Your task to perform on an android device: Add amazon basics triple a to the cart on ebay, then select checkout. Image 0: 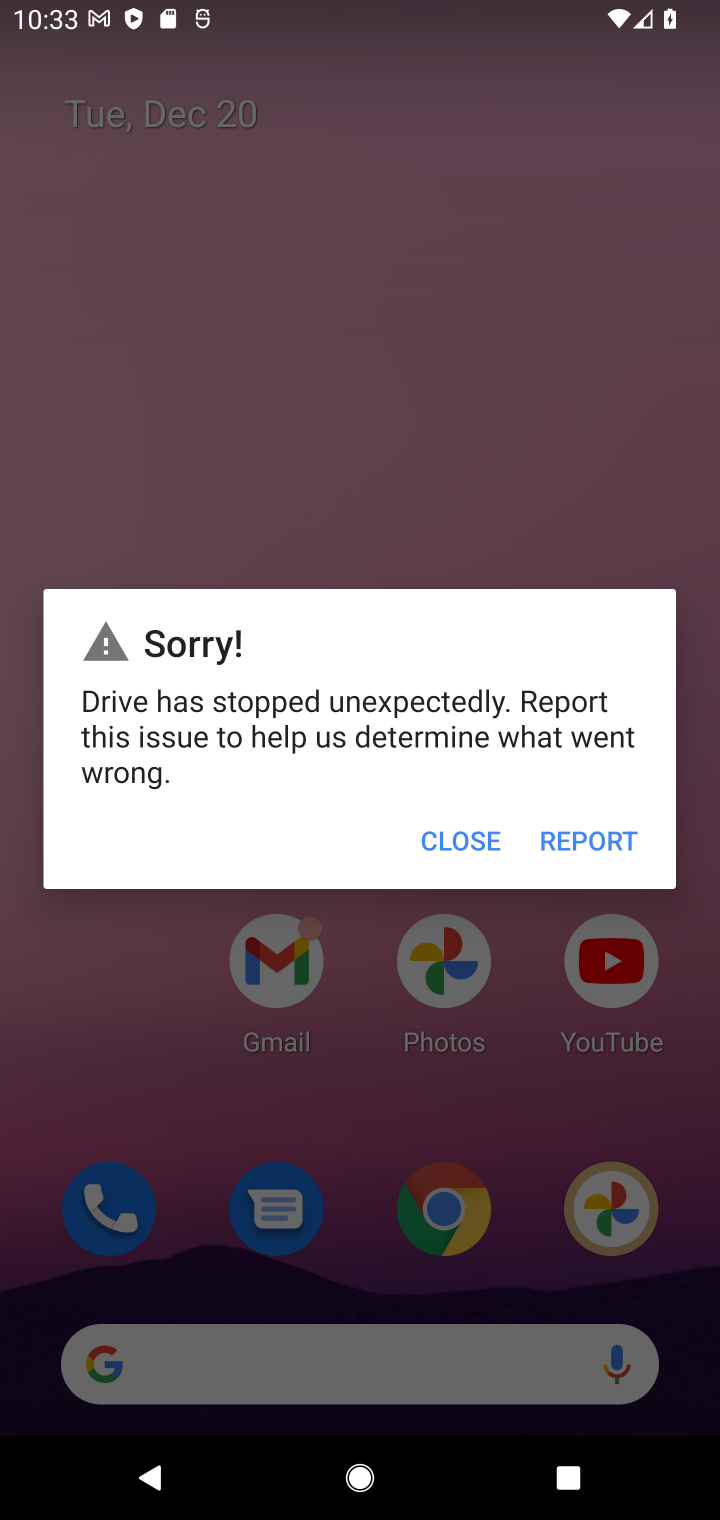
Step 0: press home button
Your task to perform on an android device: Add amazon basics triple a to the cart on ebay, then select checkout. Image 1: 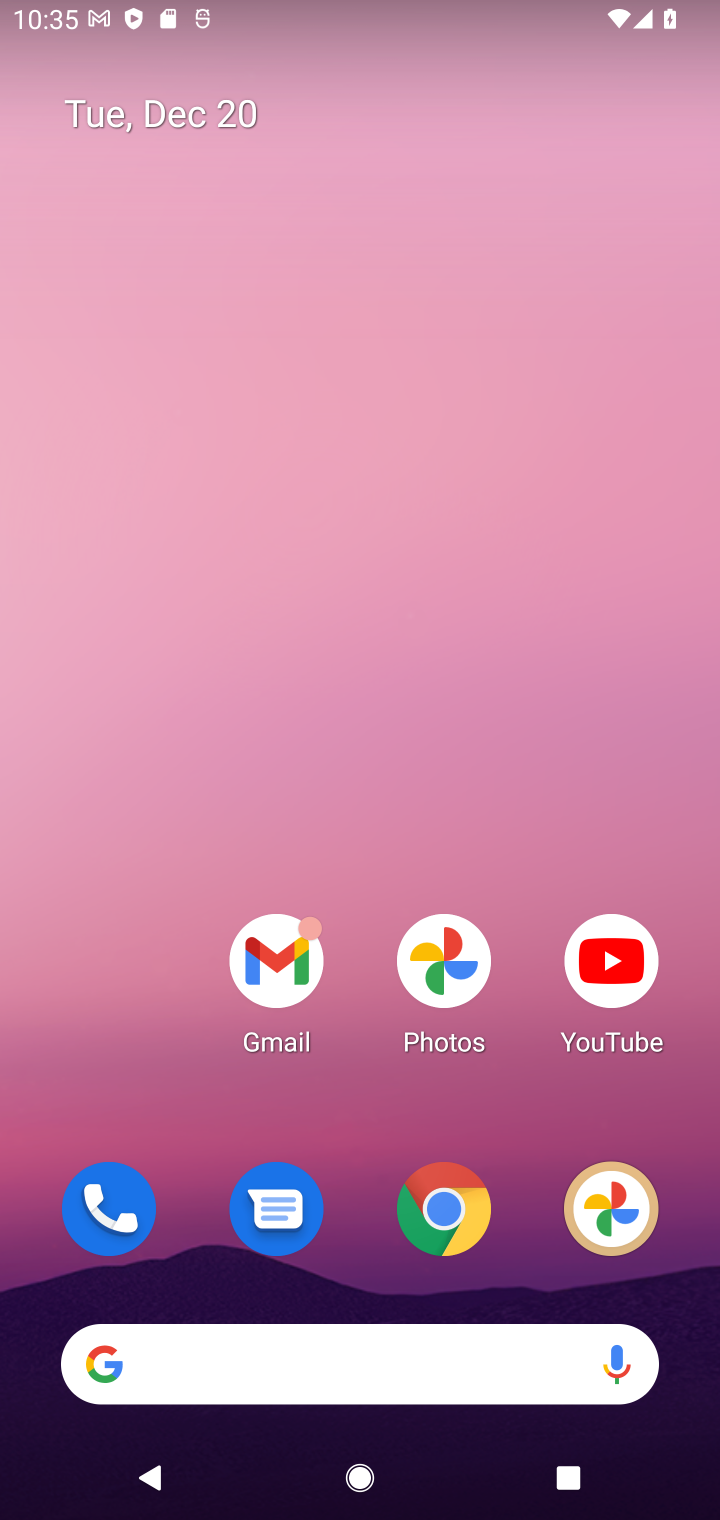
Step 1: click (446, 1218)
Your task to perform on an android device: Add amazon basics triple a to the cart on ebay, then select checkout. Image 2: 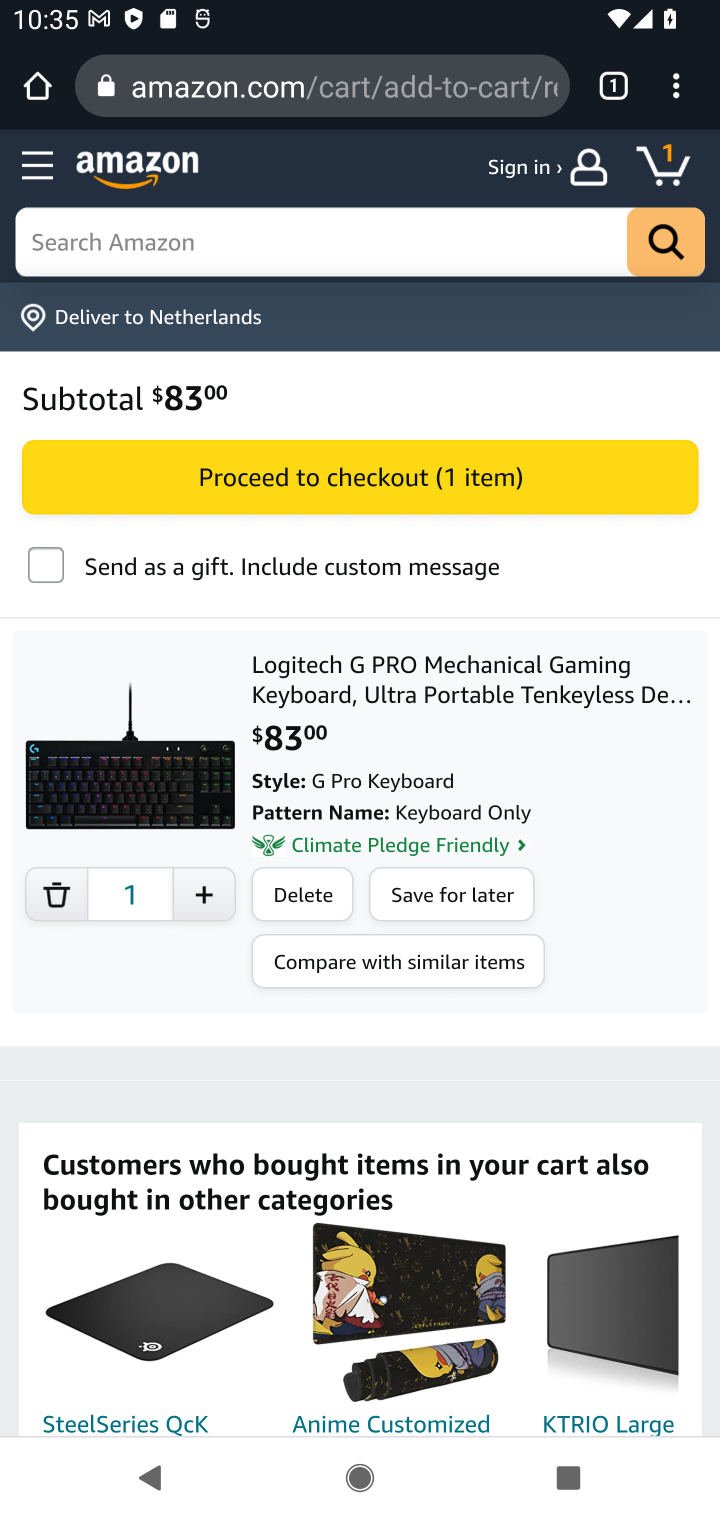
Step 2: click (295, 97)
Your task to perform on an android device: Add amazon basics triple a to the cart on ebay, then select checkout. Image 3: 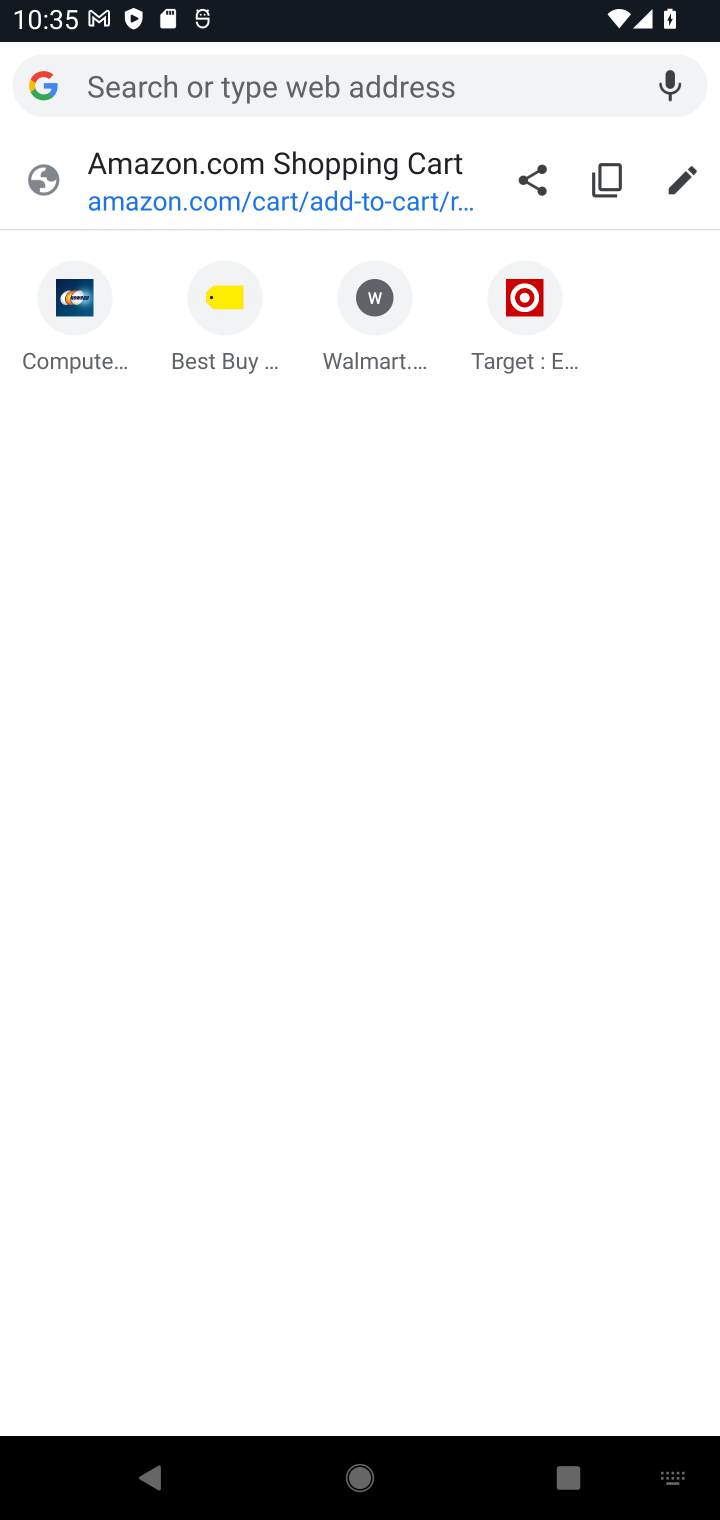
Step 3: type "ebay.com"
Your task to perform on an android device: Add amazon basics triple a to the cart on ebay, then select checkout. Image 4: 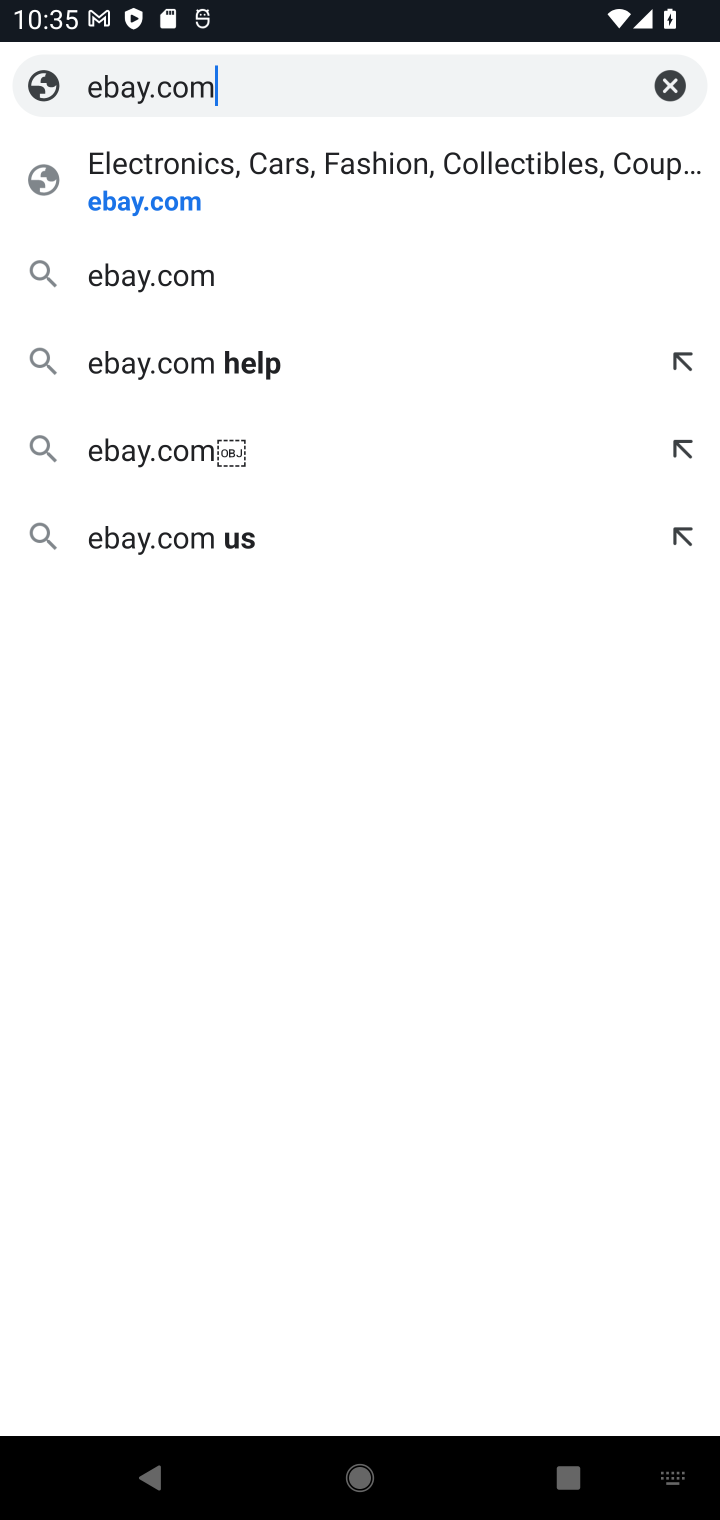
Step 4: click (116, 209)
Your task to perform on an android device: Add amazon basics triple a to the cart on ebay, then select checkout. Image 5: 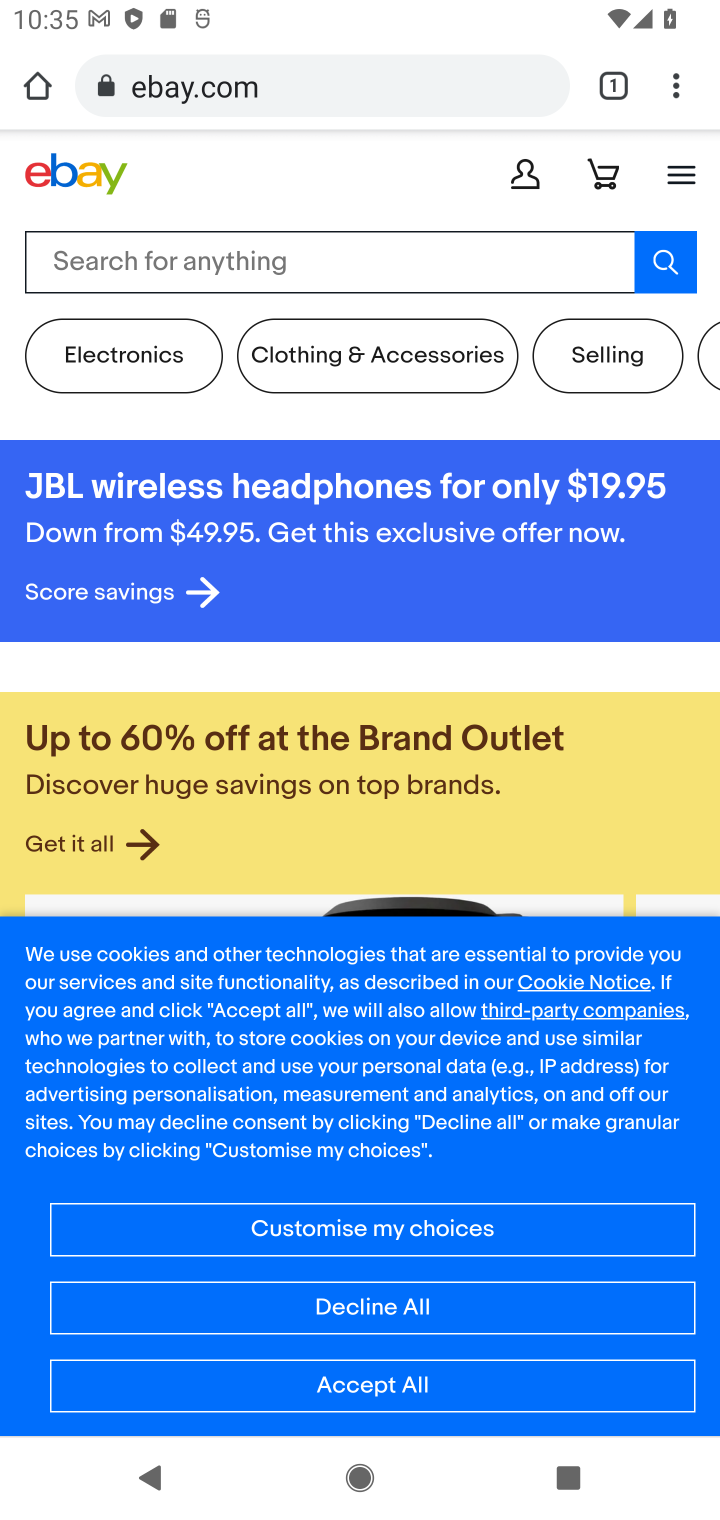
Step 5: click (132, 261)
Your task to perform on an android device: Add amazon basics triple a to the cart on ebay, then select checkout. Image 6: 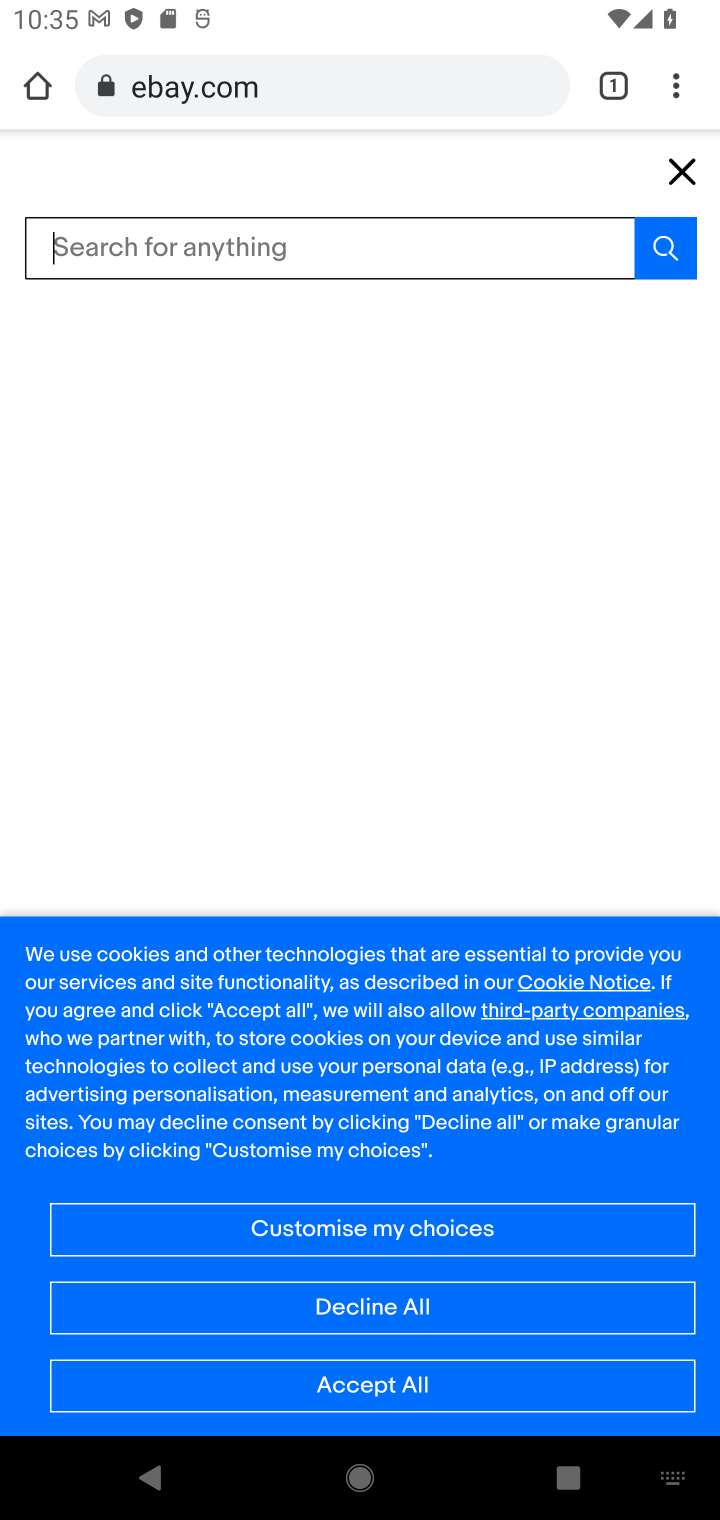
Step 6: type "amazon basics triple a"
Your task to perform on an android device: Add amazon basics triple a to the cart on ebay, then select checkout. Image 7: 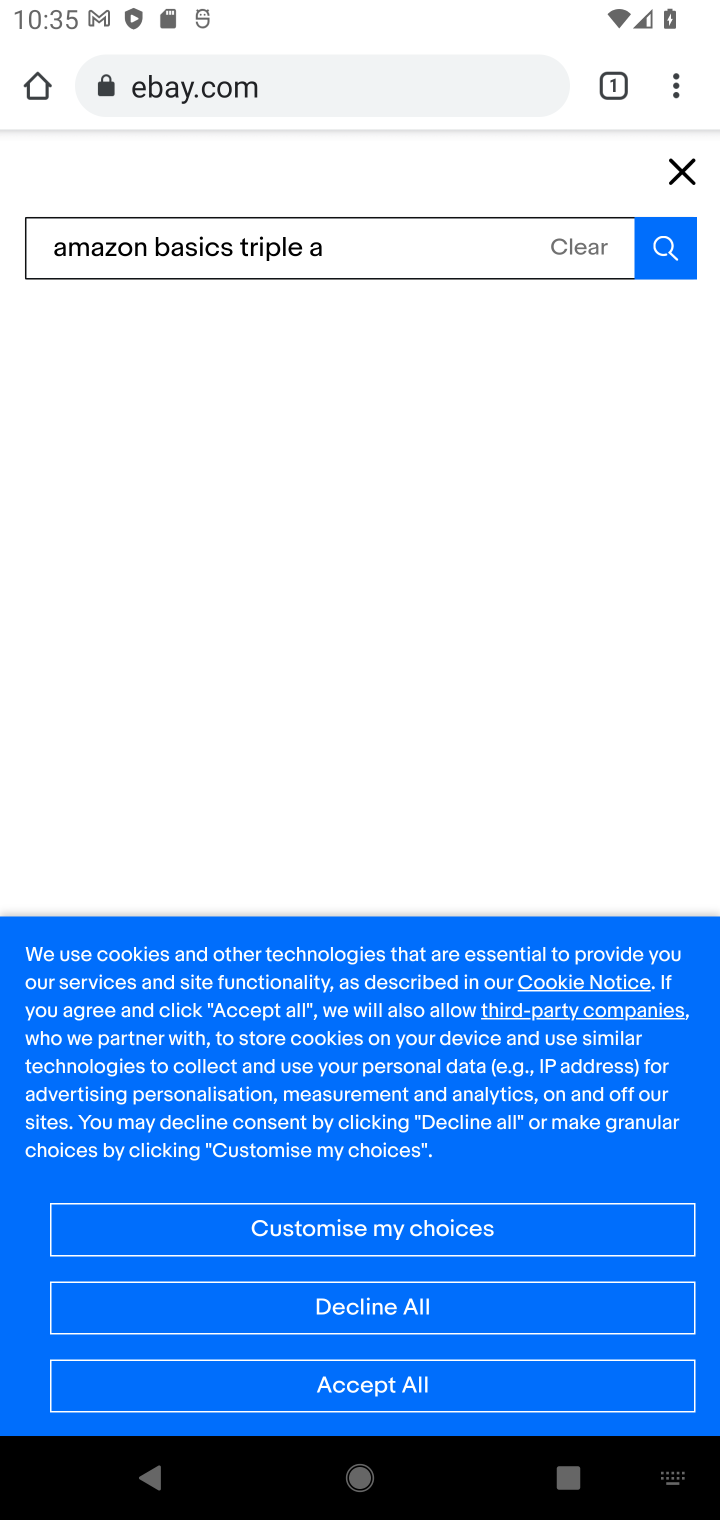
Step 7: click (676, 253)
Your task to perform on an android device: Add amazon basics triple a to the cart on ebay, then select checkout. Image 8: 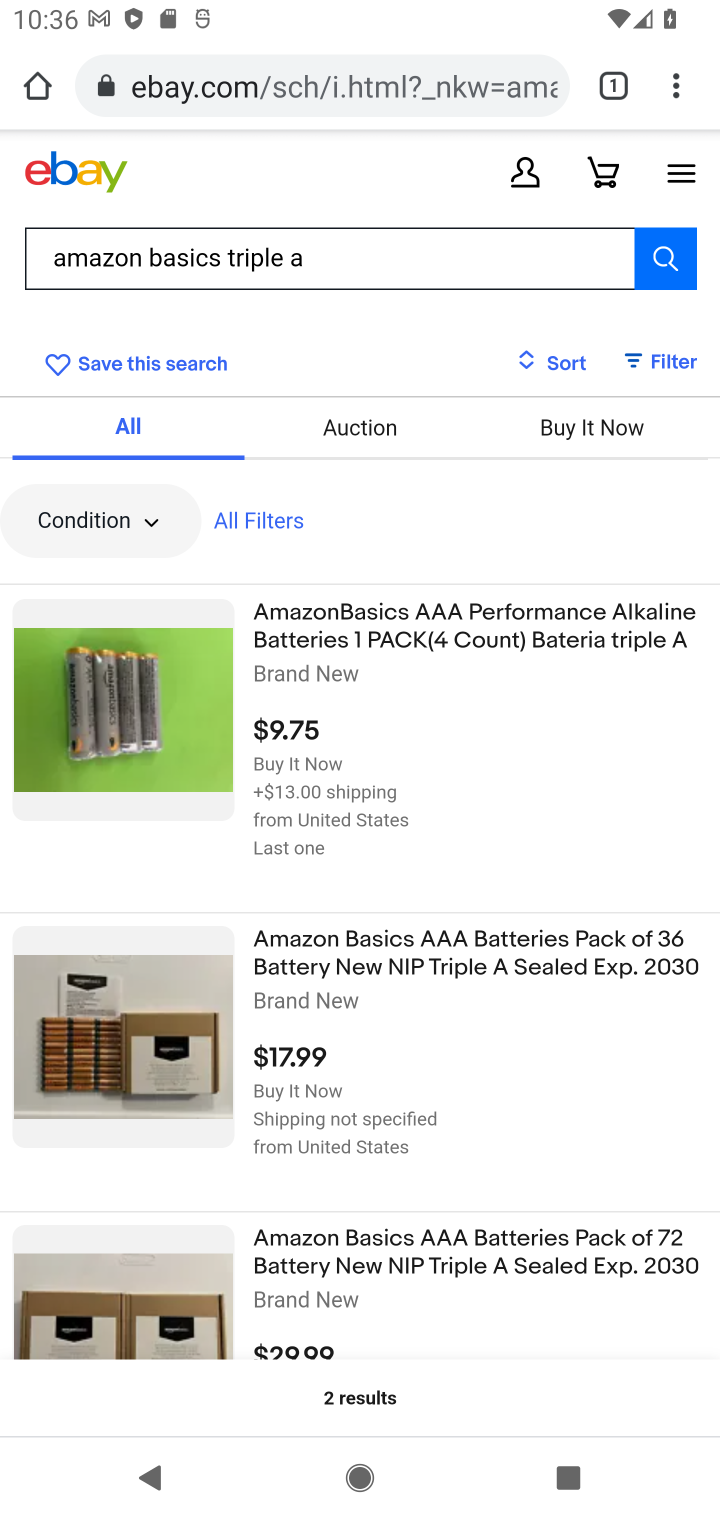
Step 8: click (302, 652)
Your task to perform on an android device: Add amazon basics triple a to the cart on ebay, then select checkout. Image 9: 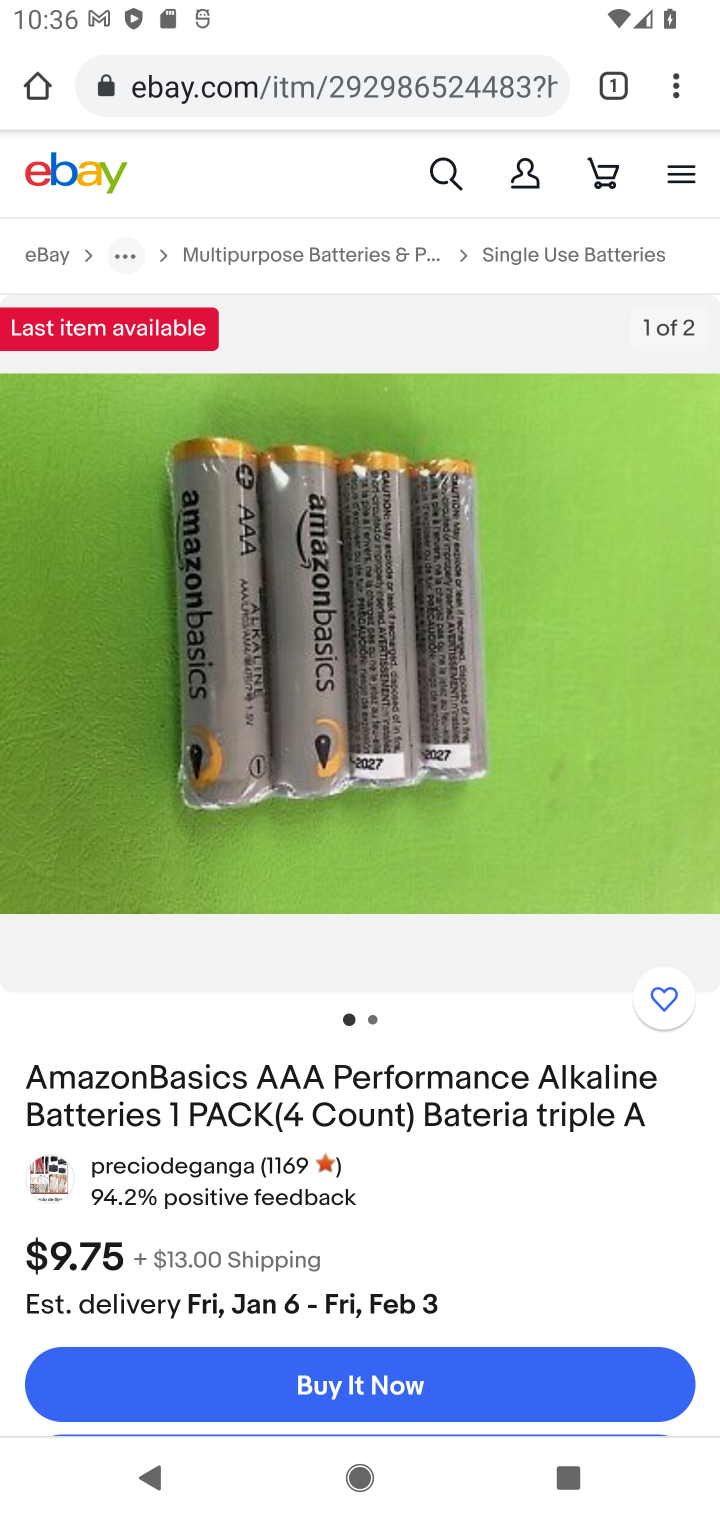
Step 9: drag from (297, 862) to (286, 668)
Your task to perform on an android device: Add amazon basics triple a to the cart on ebay, then select checkout. Image 10: 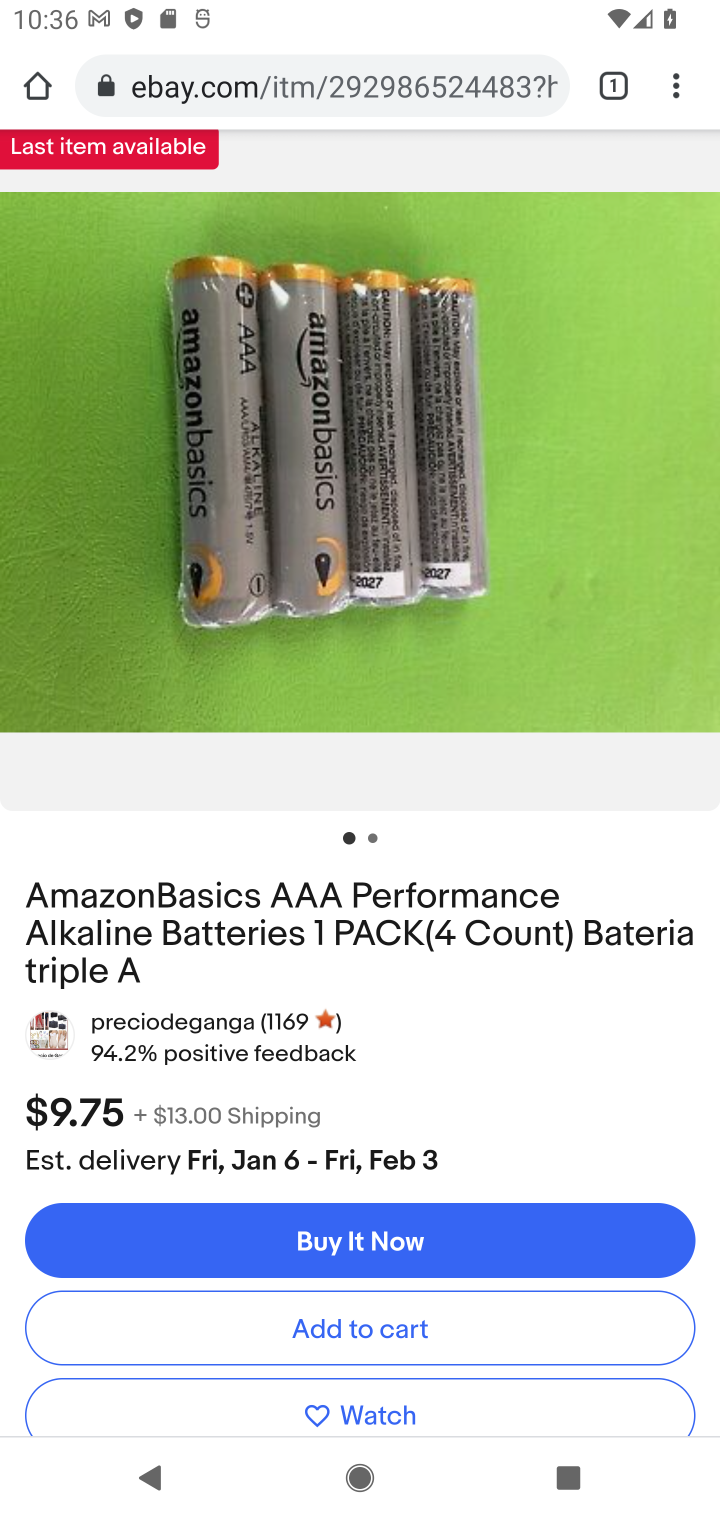
Step 10: click (328, 1326)
Your task to perform on an android device: Add amazon basics triple a to the cart on ebay, then select checkout. Image 11: 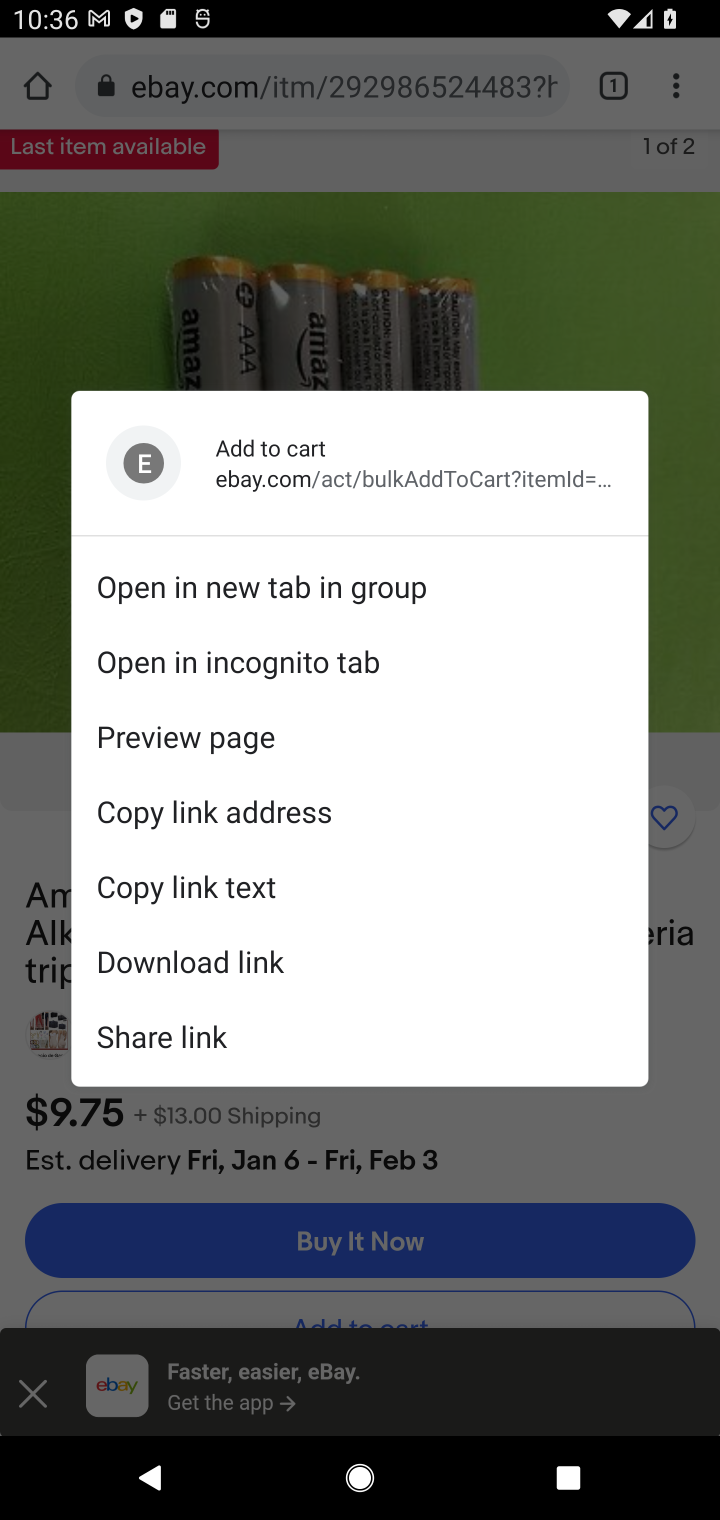
Step 11: click (627, 1119)
Your task to perform on an android device: Add amazon basics triple a to the cart on ebay, then select checkout. Image 12: 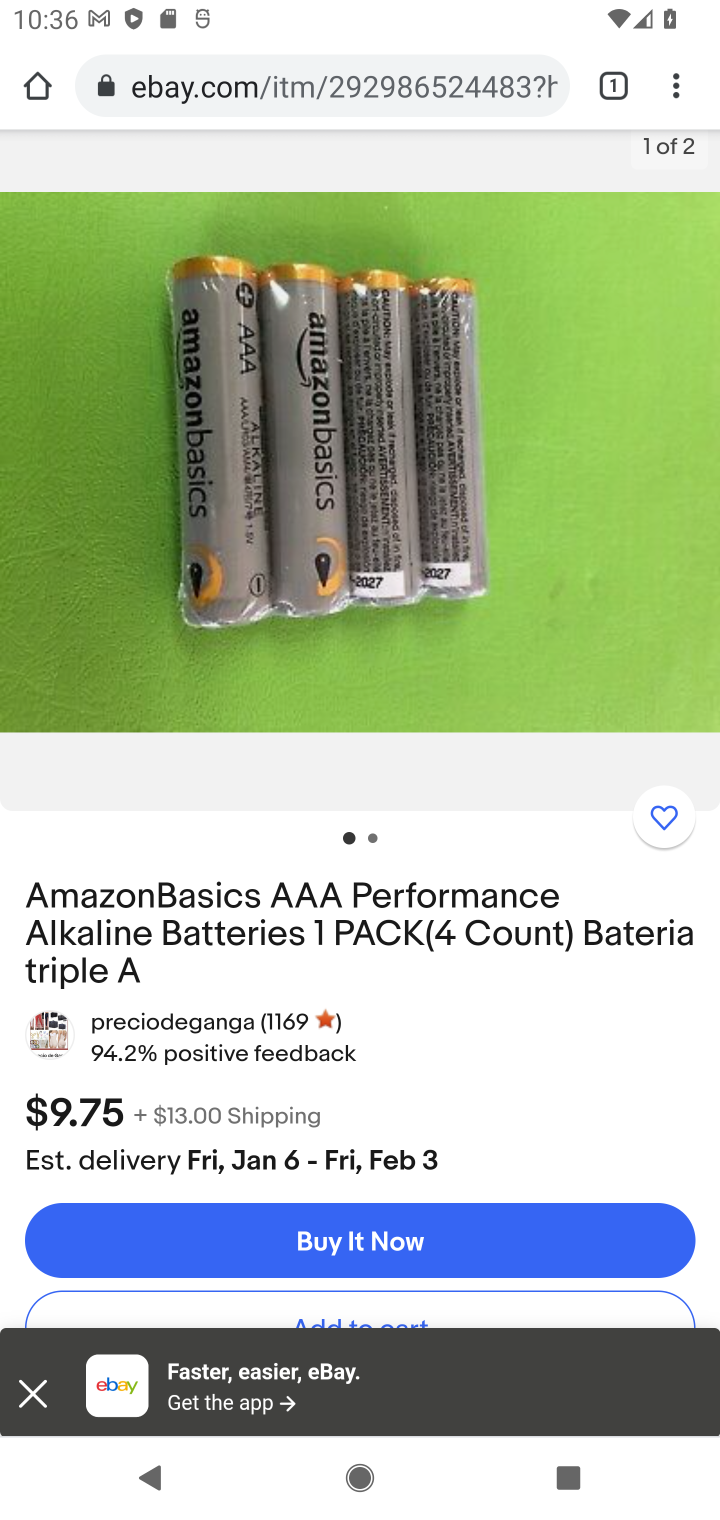
Step 12: click (34, 1402)
Your task to perform on an android device: Add amazon basics triple a to the cart on ebay, then select checkout. Image 13: 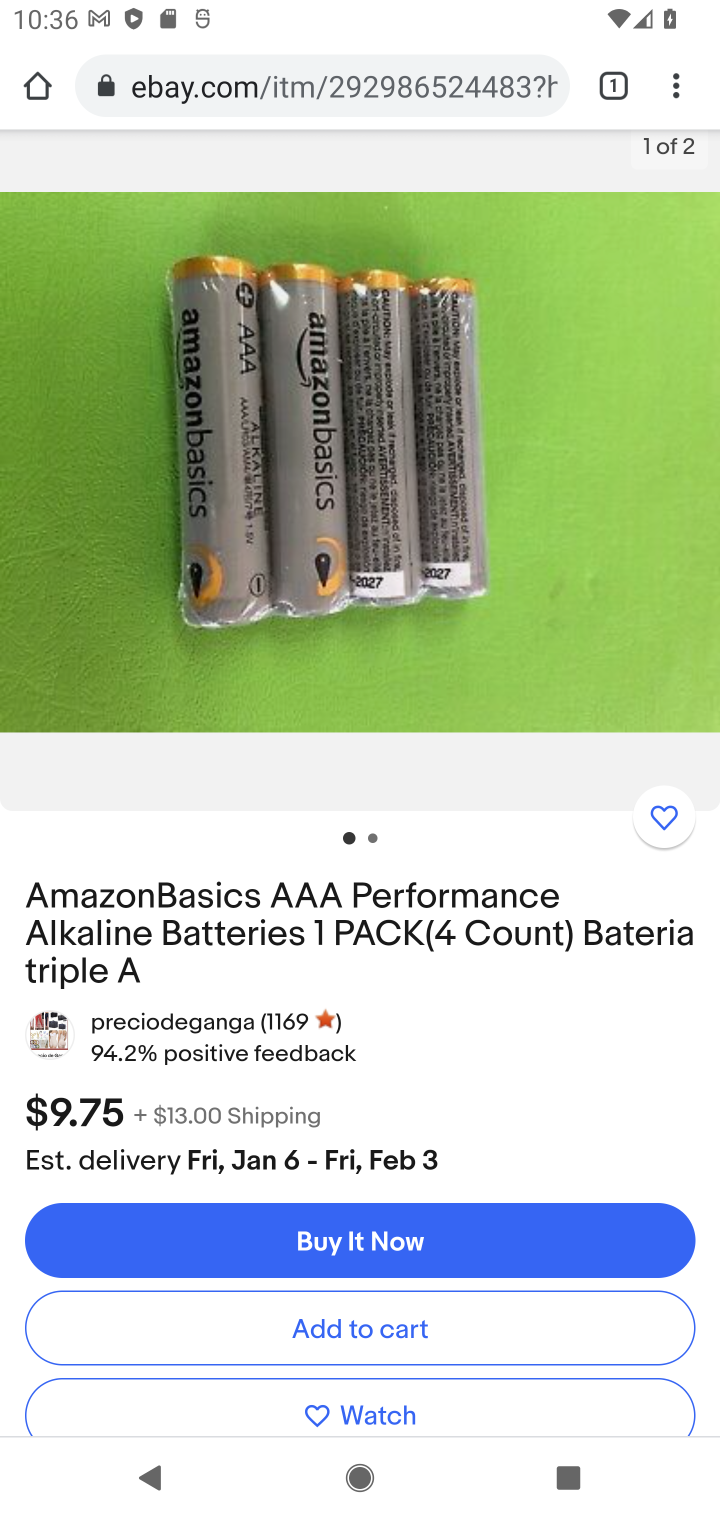
Step 13: click (366, 1345)
Your task to perform on an android device: Add amazon basics triple a to the cart on ebay, then select checkout. Image 14: 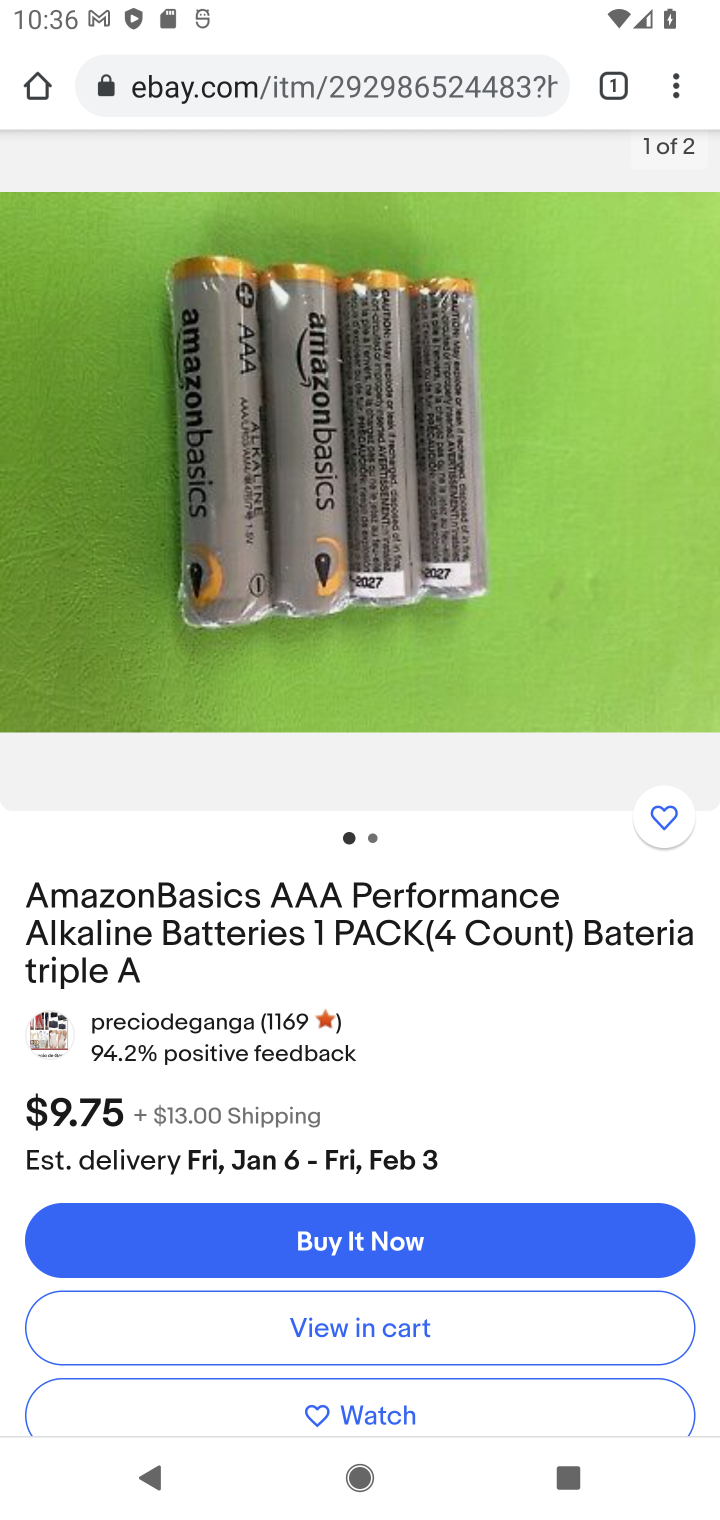
Step 14: click (366, 1334)
Your task to perform on an android device: Add amazon basics triple a to the cart on ebay, then select checkout. Image 15: 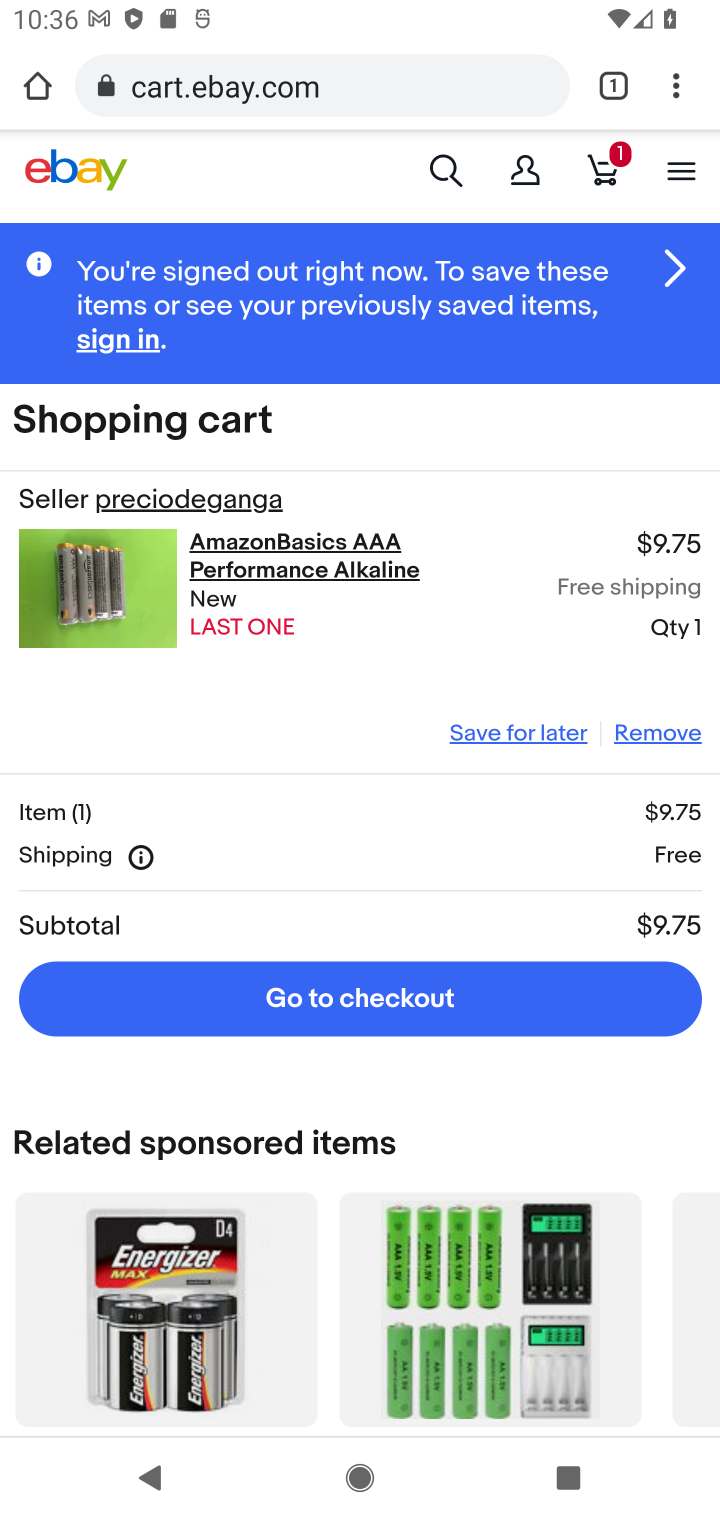
Step 15: click (343, 958)
Your task to perform on an android device: Add amazon basics triple a to the cart on ebay, then select checkout. Image 16: 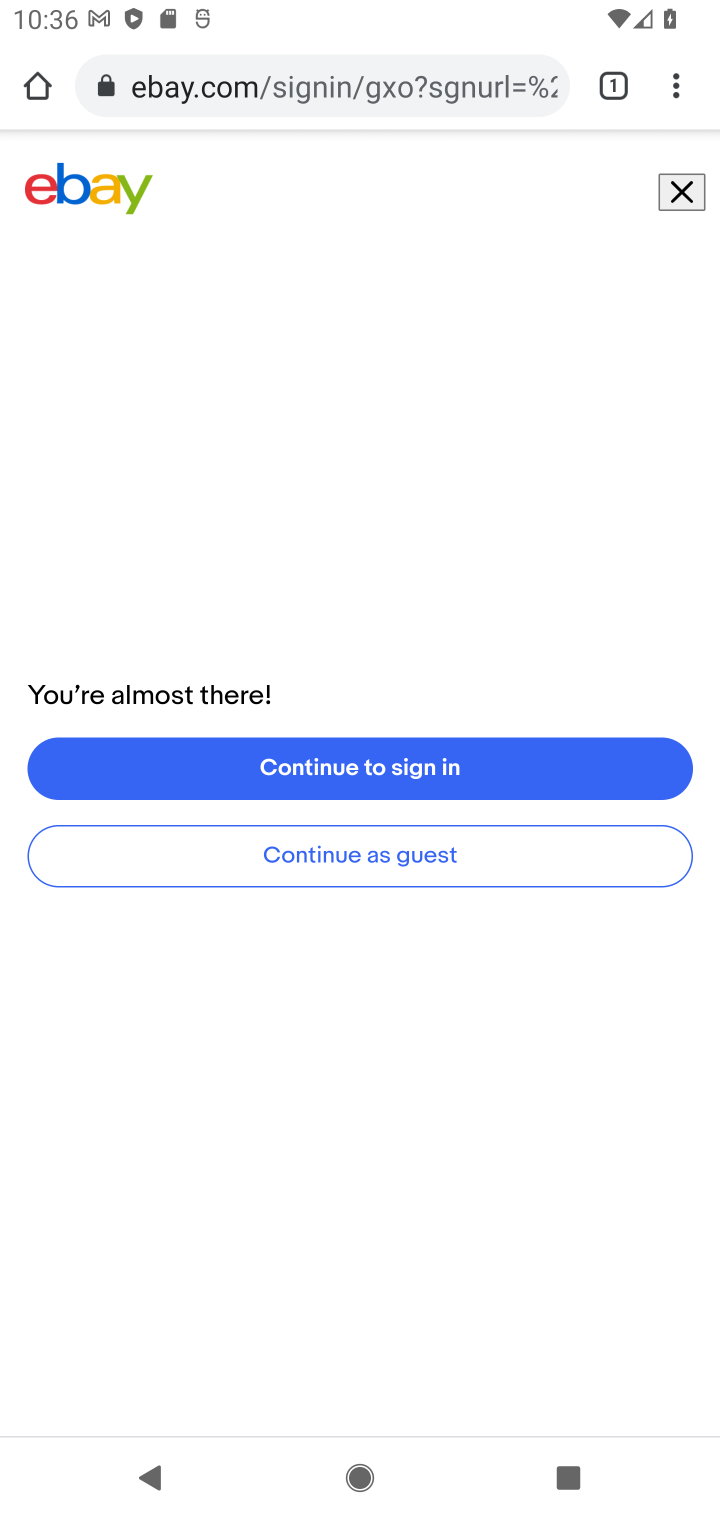
Step 16: task complete